Your task to perform on an android device: Open my contact list Image 0: 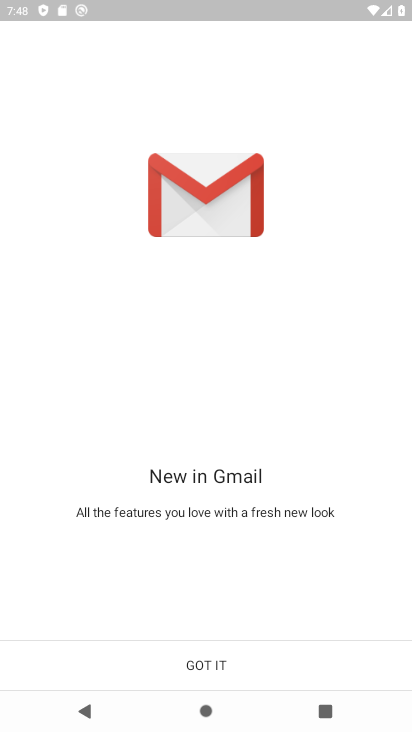
Step 0: press home button
Your task to perform on an android device: Open my contact list Image 1: 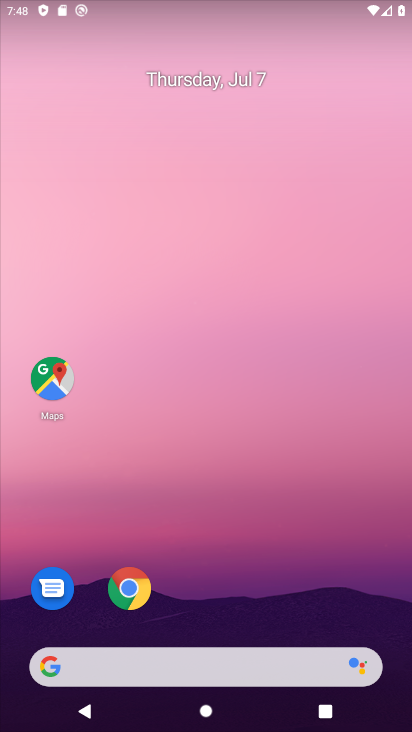
Step 1: drag from (355, 590) to (317, 49)
Your task to perform on an android device: Open my contact list Image 2: 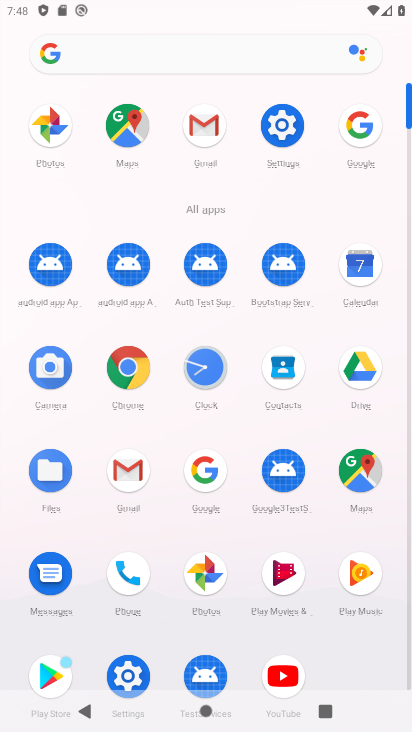
Step 2: click (289, 367)
Your task to perform on an android device: Open my contact list Image 3: 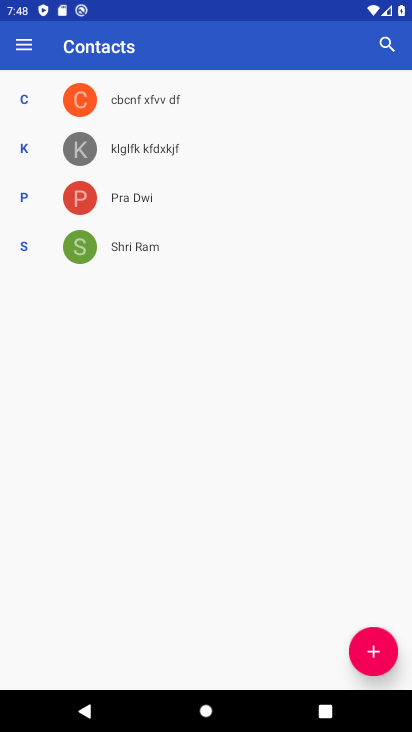
Step 3: task complete